Your task to perform on an android device: What is the news today? Image 0: 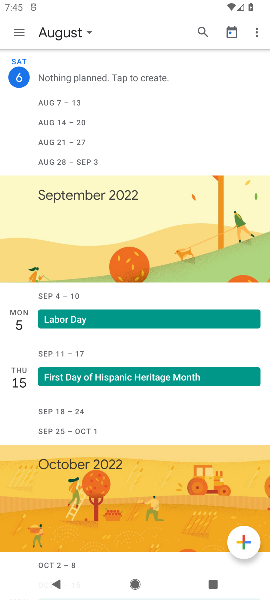
Step 0: press home button
Your task to perform on an android device: What is the news today? Image 1: 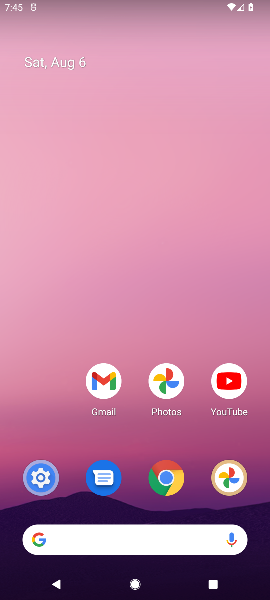
Step 1: click (40, 534)
Your task to perform on an android device: What is the news today? Image 2: 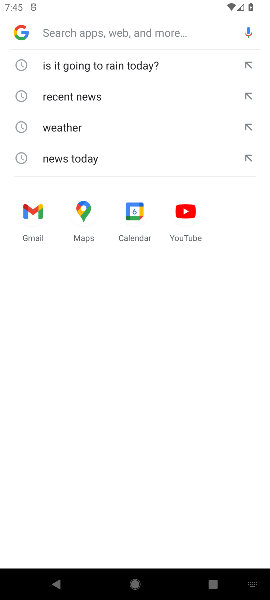
Step 2: type "What is the news today?"
Your task to perform on an android device: What is the news today? Image 3: 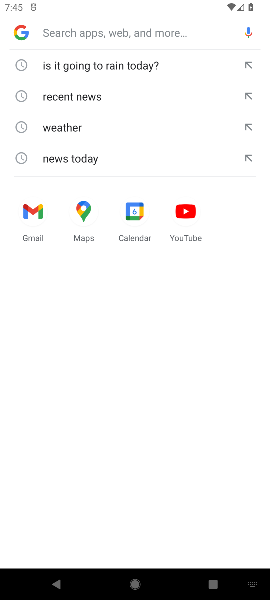
Step 3: click (90, 34)
Your task to perform on an android device: What is the news today? Image 4: 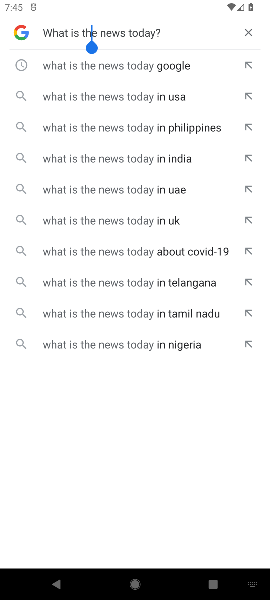
Step 4: press enter
Your task to perform on an android device: What is the news today? Image 5: 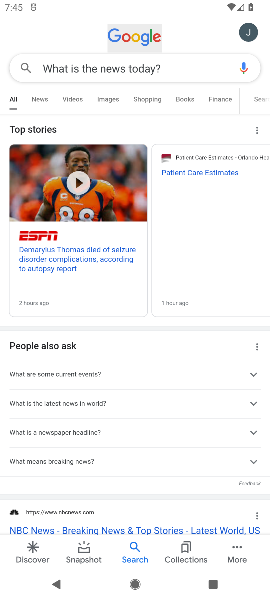
Step 5: task complete